Your task to perform on an android device: see sites visited before in the chrome app Image 0: 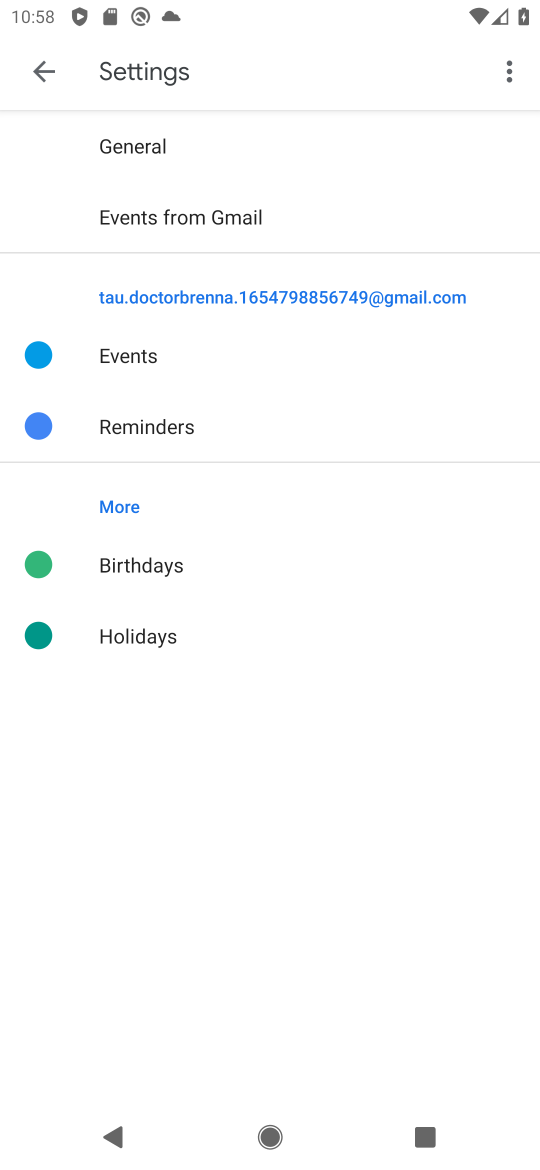
Step 0: press home button
Your task to perform on an android device: see sites visited before in the chrome app Image 1: 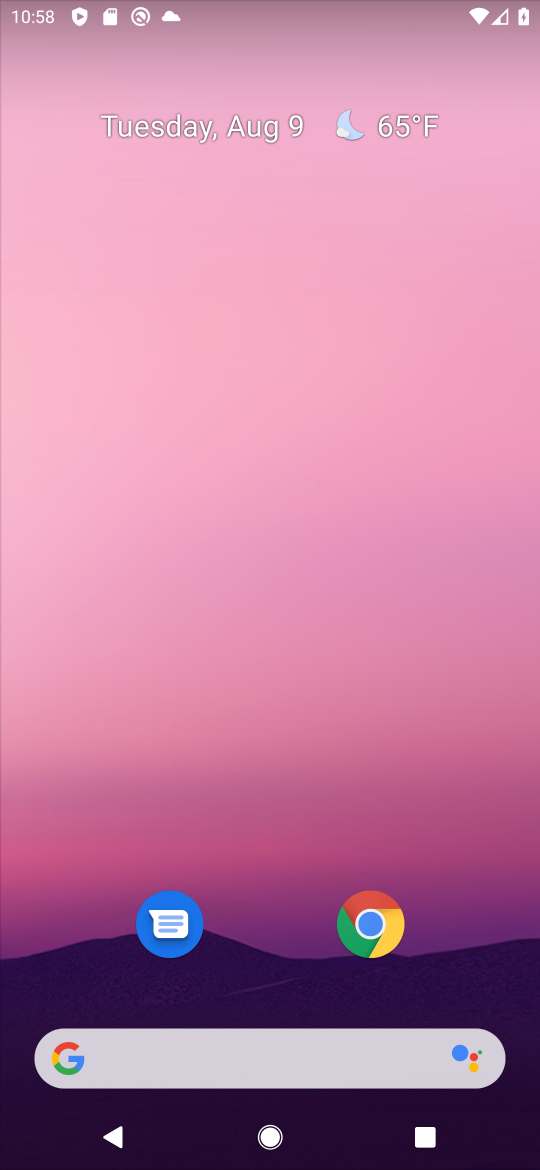
Step 1: drag from (319, 367) to (319, 69)
Your task to perform on an android device: see sites visited before in the chrome app Image 2: 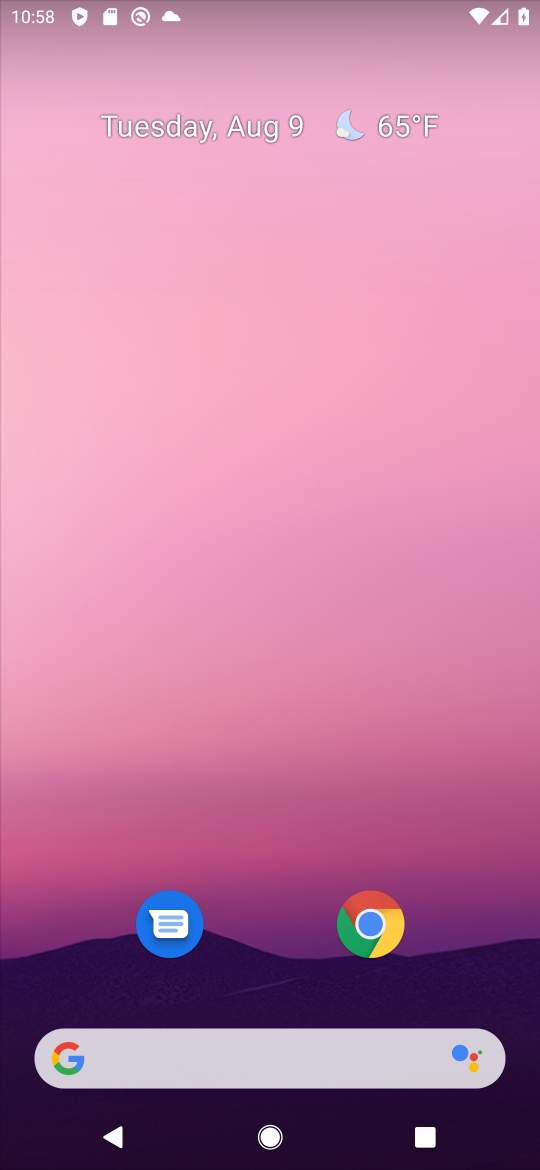
Step 2: drag from (235, 959) to (293, 62)
Your task to perform on an android device: see sites visited before in the chrome app Image 3: 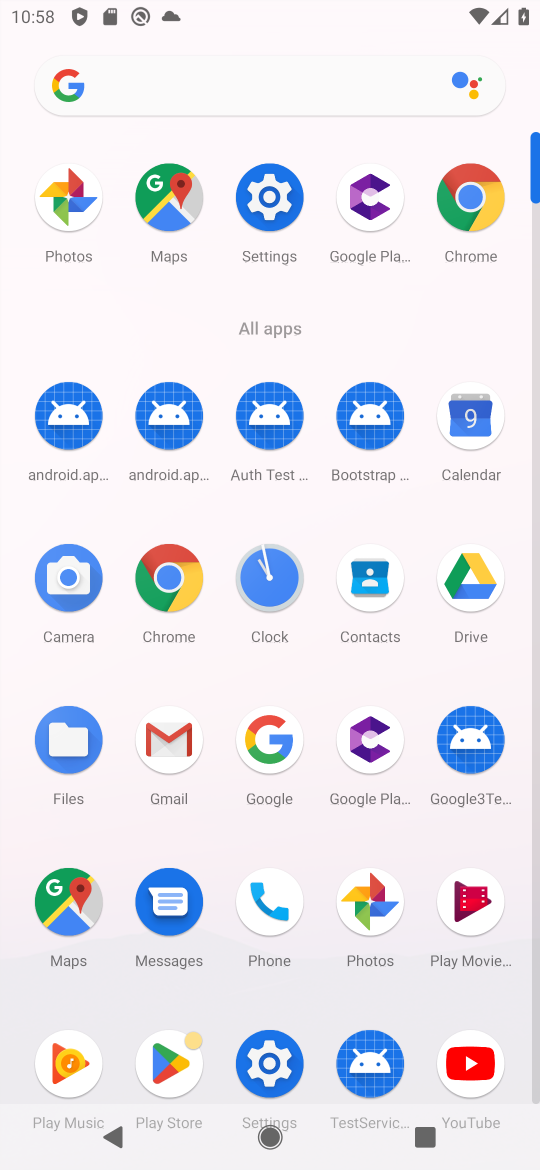
Step 3: click (170, 580)
Your task to perform on an android device: see sites visited before in the chrome app Image 4: 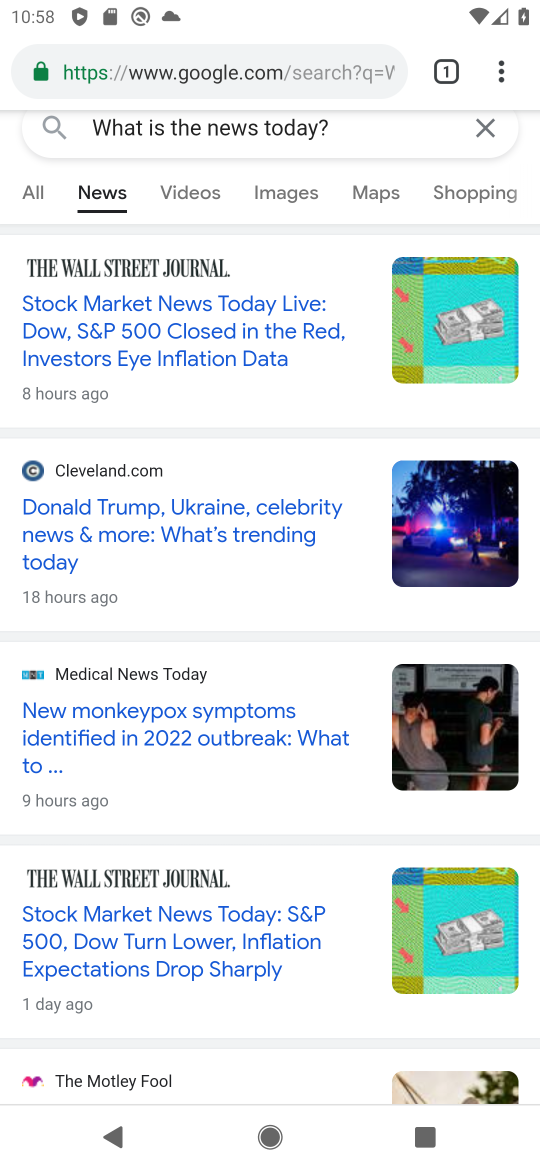
Step 4: drag from (501, 59) to (257, 785)
Your task to perform on an android device: see sites visited before in the chrome app Image 5: 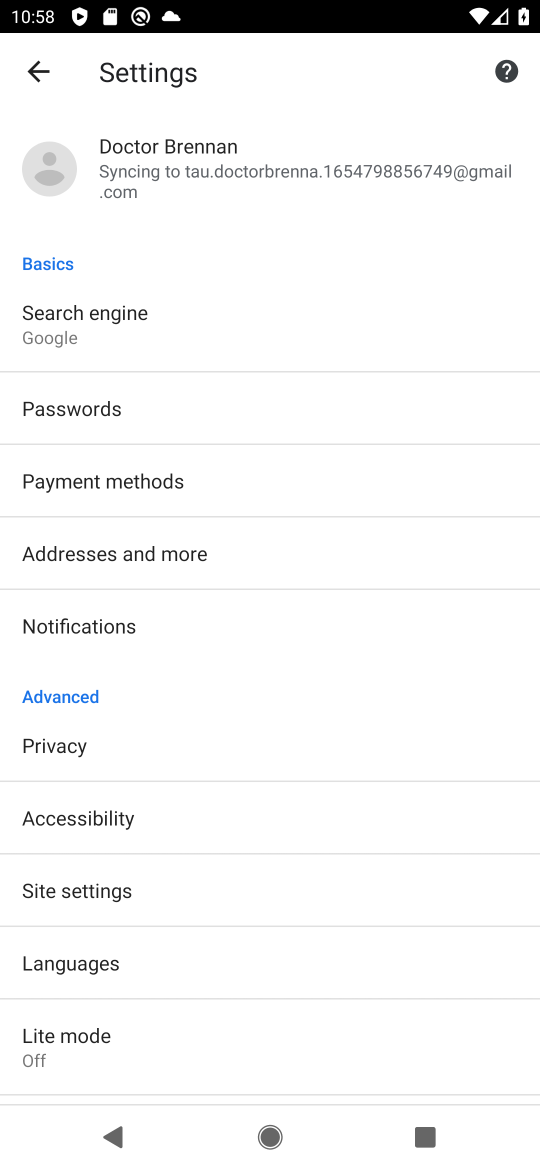
Step 5: click (135, 897)
Your task to perform on an android device: see sites visited before in the chrome app Image 6: 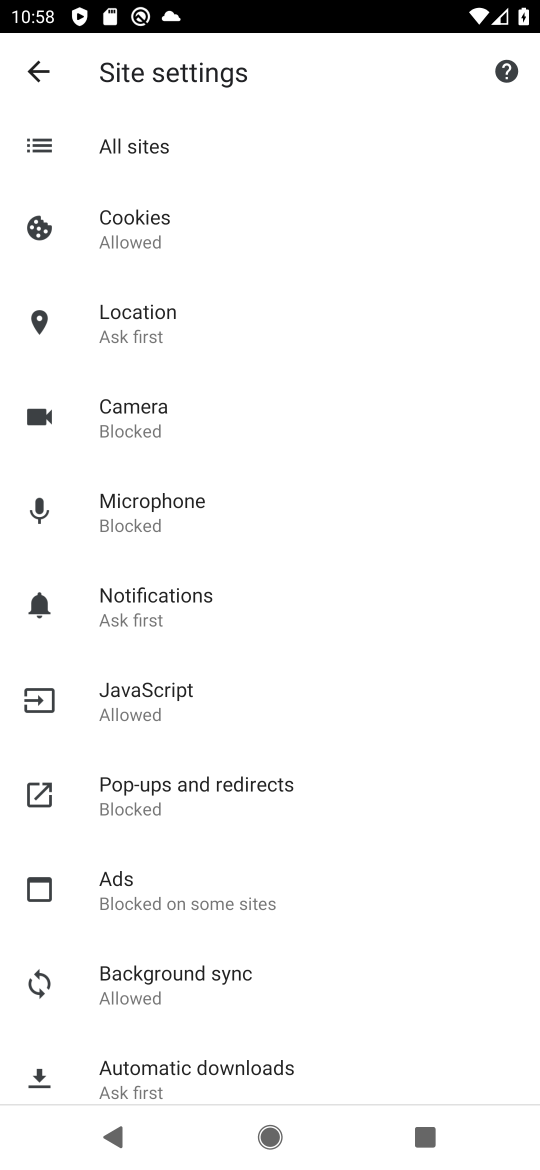
Step 6: click (148, 142)
Your task to perform on an android device: see sites visited before in the chrome app Image 7: 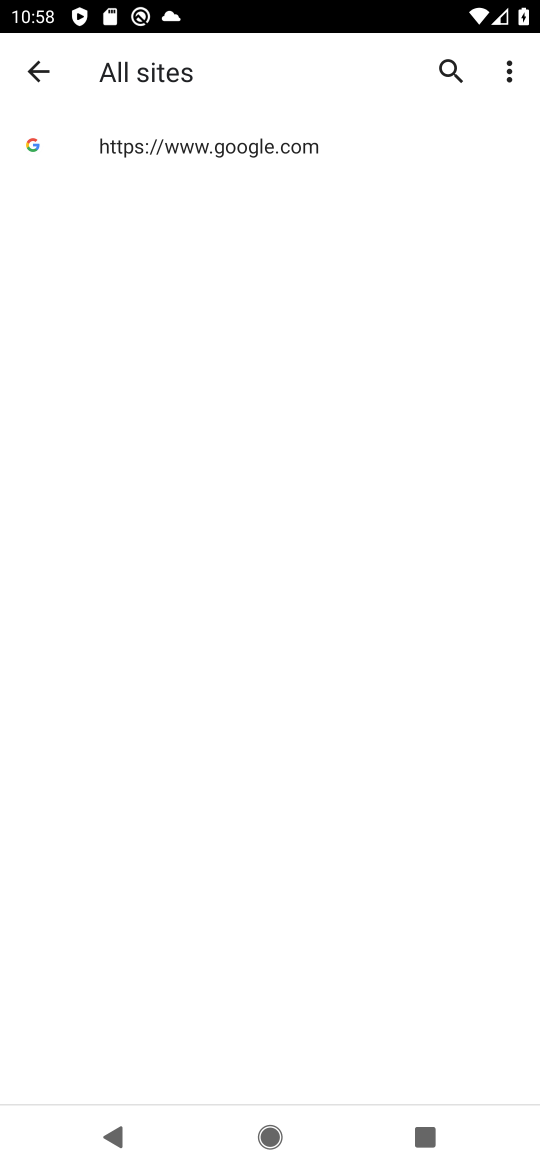
Step 7: click (257, 135)
Your task to perform on an android device: see sites visited before in the chrome app Image 8: 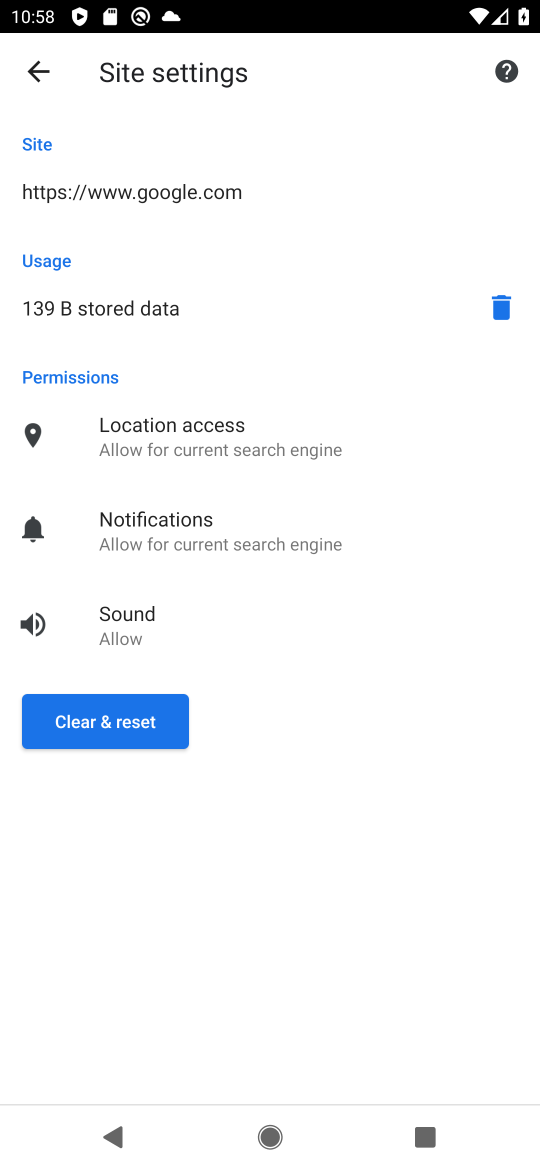
Step 8: task complete